Your task to perform on an android device: toggle show notifications on the lock screen Image 0: 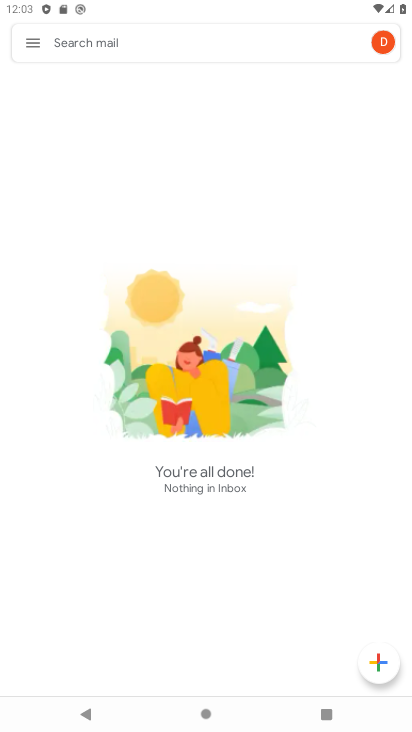
Step 0: press home button
Your task to perform on an android device: toggle show notifications on the lock screen Image 1: 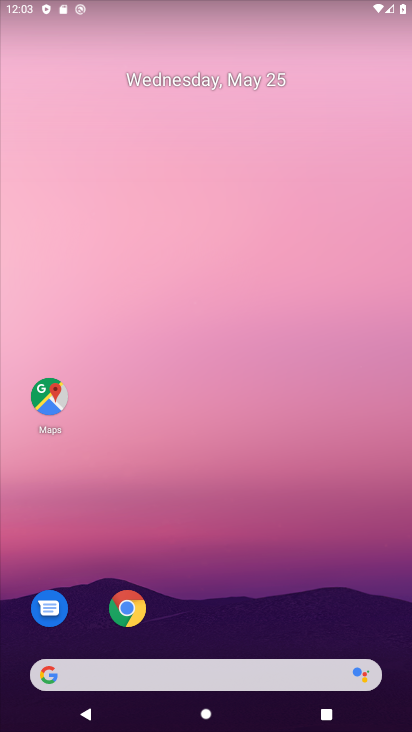
Step 1: drag from (277, 587) to (276, 138)
Your task to perform on an android device: toggle show notifications on the lock screen Image 2: 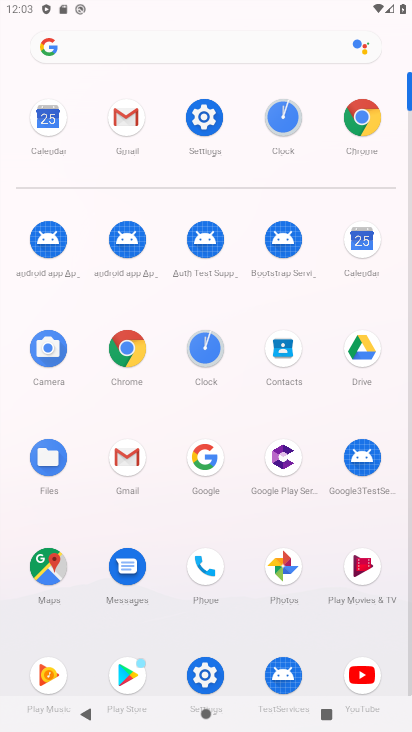
Step 2: click (218, 133)
Your task to perform on an android device: toggle show notifications on the lock screen Image 3: 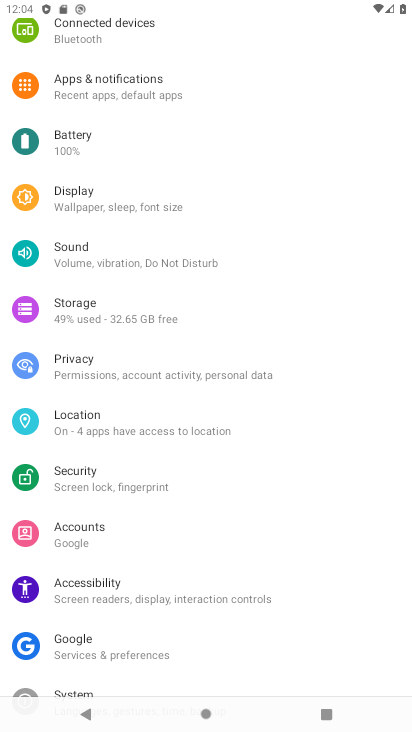
Step 3: click (195, 71)
Your task to perform on an android device: toggle show notifications on the lock screen Image 4: 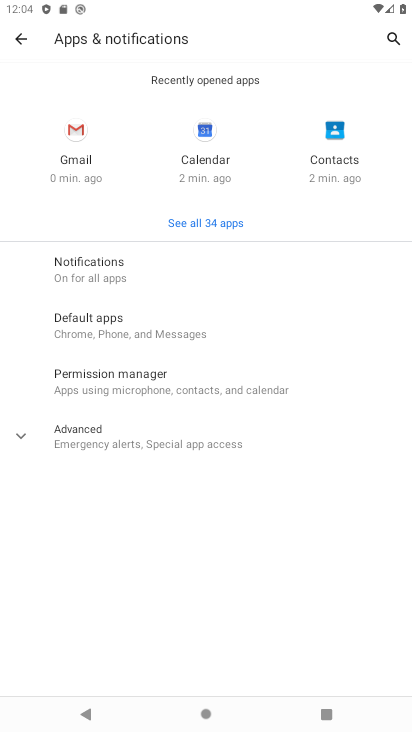
Step 4: click (153, 368)
Your task to perform on an android device: toggle show notifications on the lock screen Image 5: 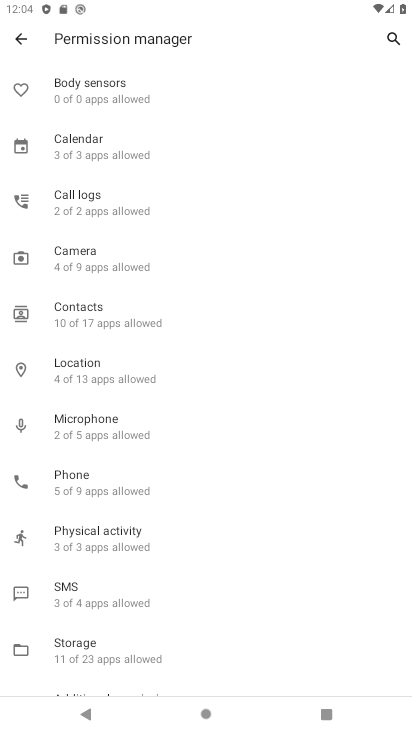
Step 5: click (20, 29)
Your task to perform on an android device: toggle show notifications on the lock screen Image 6: 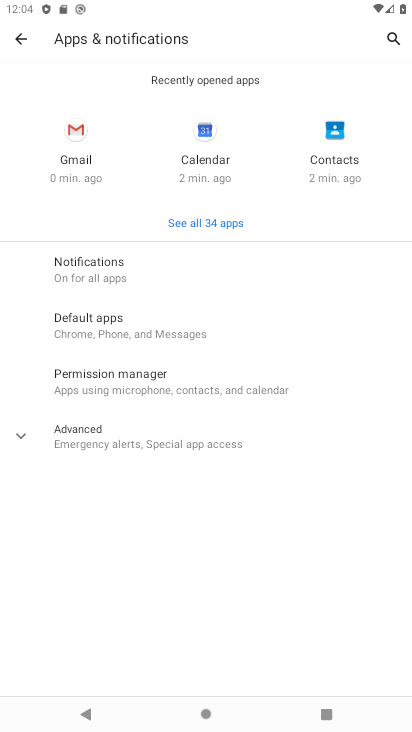
Step 6: click (147, 251)
Your task to perform on an android device: toggle show notifications on the lock screen Image 7: 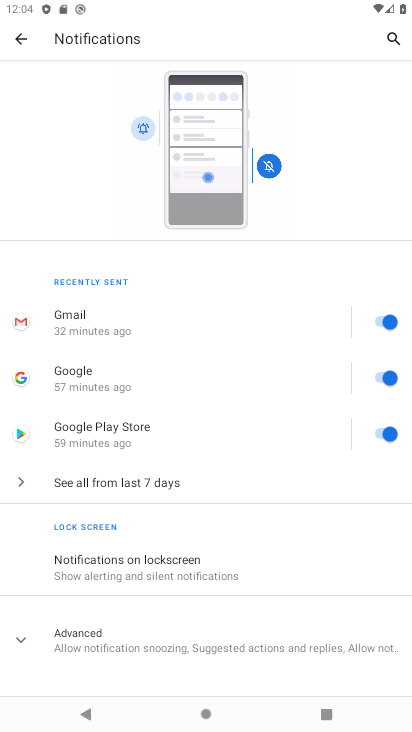
Step 7: click (178, 557)
Your task to perform on an android device: toggle show notifications on the lock screen Image 8: 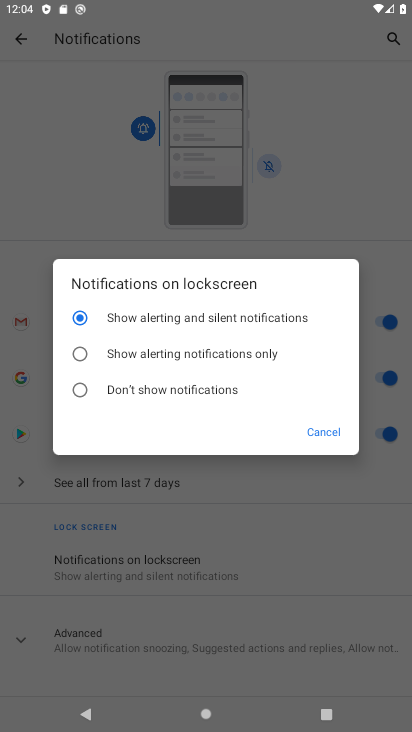
Step 8: click (247, 351)
Your task to perform on an android device: toggle show notifications on the lock screen Image 9: 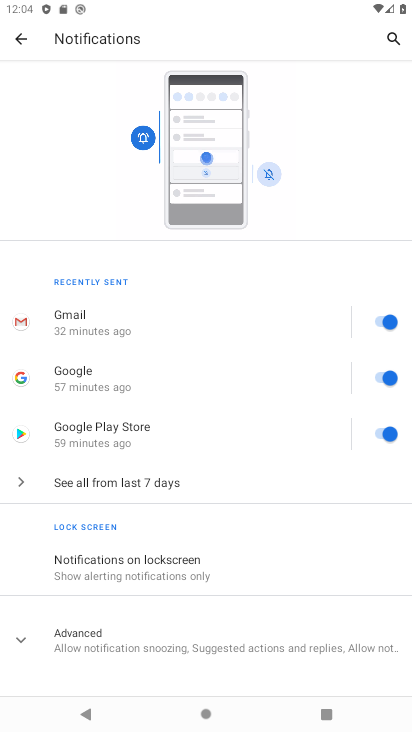
Step 9: task complete